Your task to perform on an android device: uninstall "LiveIn - Share Your Moment" Image 0: 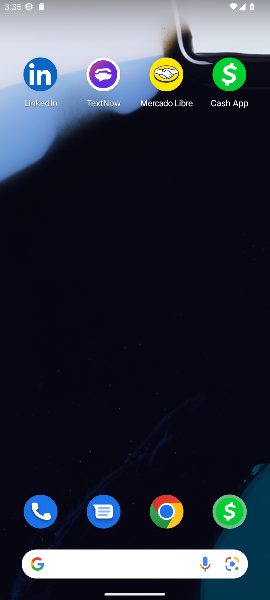
Step 0: drag from (139, 550) to (128, 217)
Your task to perform on an android device: uninstall "LiveIn - Share Your Moment" Image 1: 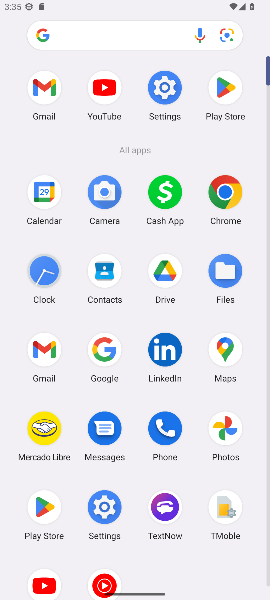
Step 1: click (226, 86)
Your task to perform on an android device: uninstall "LiveIn - Share Your Moment" Image 2: 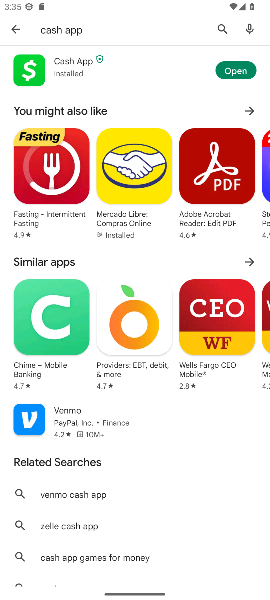
Step 2: click (17, 34)
Your task to perform on an android device: uninstall "LiveIn - Share Your Moment" Image 3: 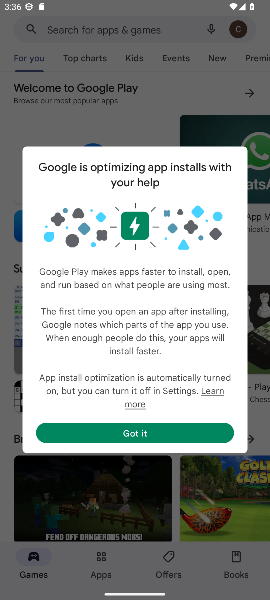
Step 3: click (143, 433)
Your task to perform on an android device: uninstall "LiveIn - Share Your Moment" Image 4: 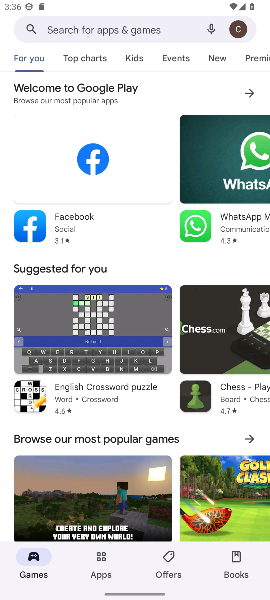
Step 4: click (110, 30)
Your task to perform on an android device: uninstall "LiveIn - Share Your Moment" Image 5: 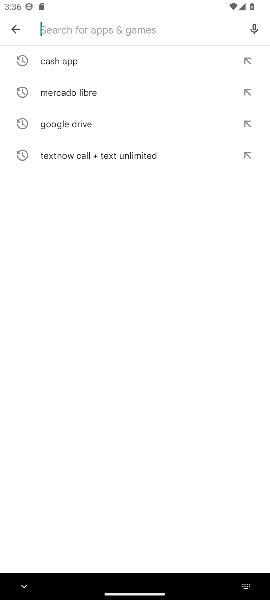
Step 5: type "LiveIn - Share Your Moment"
Your task to perform on an android device: uninstall "LiveIn - Share Your Moment" Image 6: 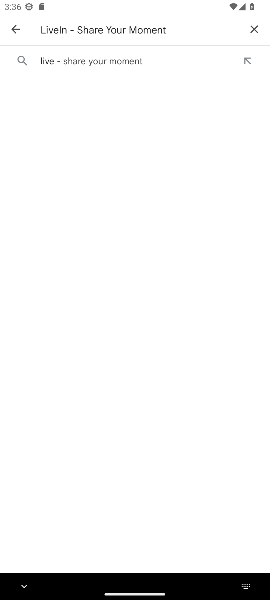
Step 6: click (59, 60)
Your task to perform on an android device: uninstall "LiveIn - Share Your Moment" Image 7: 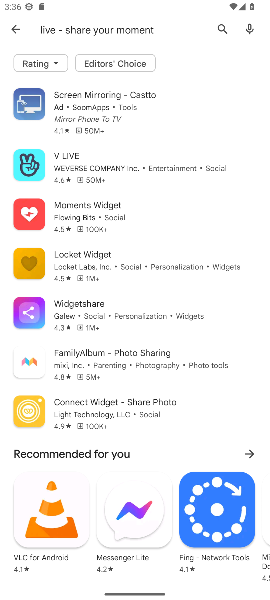
Step 7: task complete